Your task to perform on an android device: Open the map Image 0: 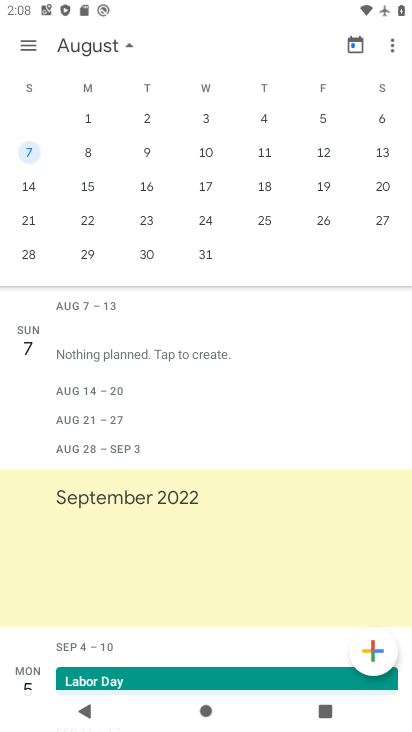
Step 0: press home button
Your task to perform on an android device: Open the map Image 1: 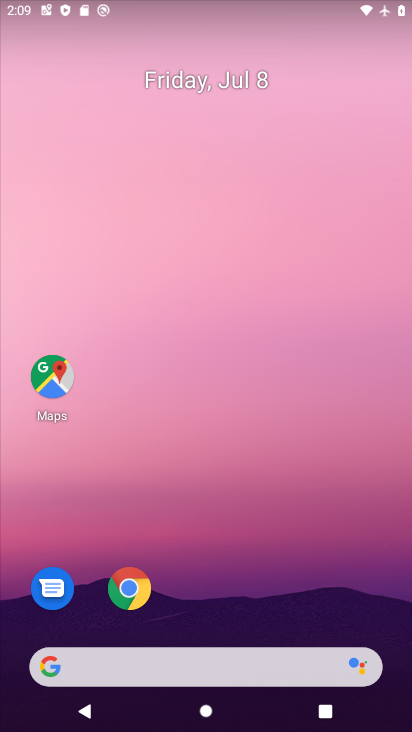
Step 1: drag from (213, 619) to (279, 182)
Your task to perform on an android device: Open the map Image 2: 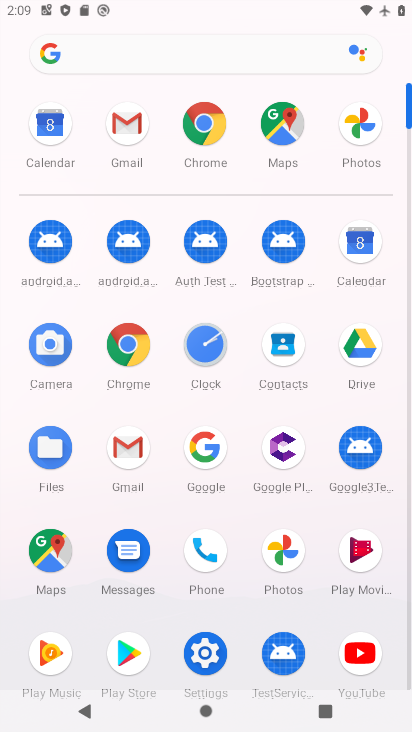
Step 2: click (287, 126)
Your task to perform on an android device: Open the map Image 3: 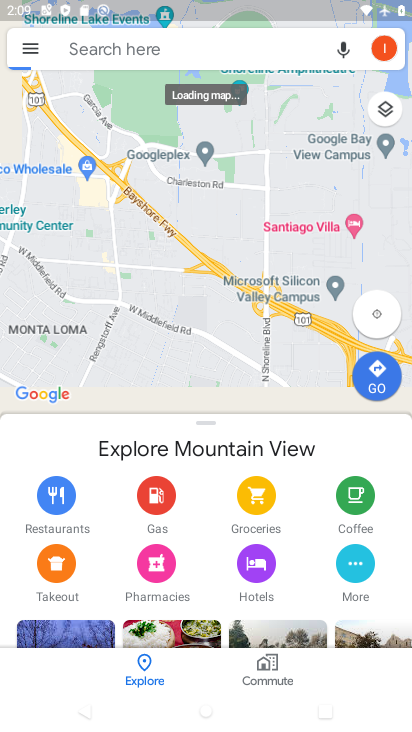
Step 3: task complete